Your task to perform on an android device: change timer sound Image 0: 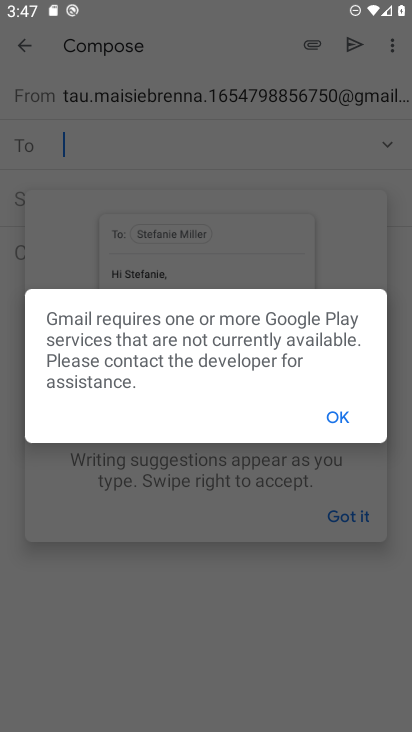
Step 0: press home button
Your task to perform on an android device: change timer sound Image 1: 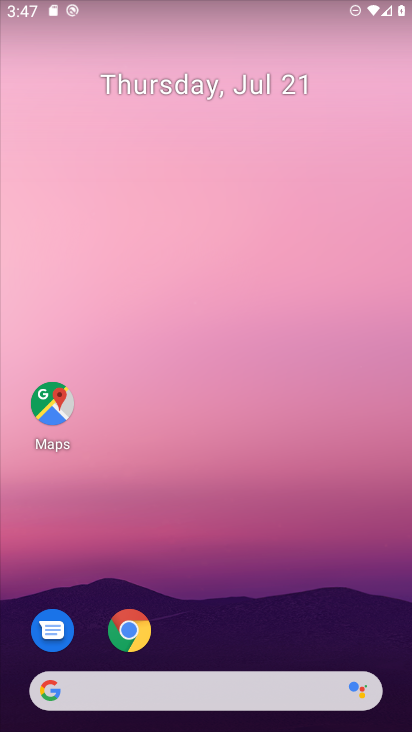
Step 1: drag from (182, 653) to (317, 18)
Your task to perform on an android device: change timer sound Image 2: 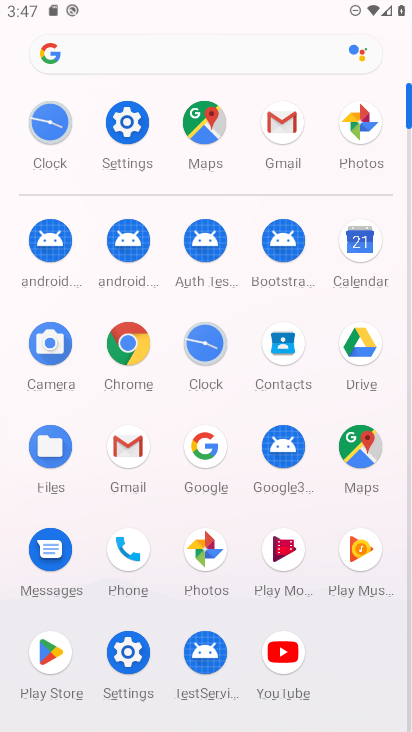
Step 2: click (201, 355)
Your task to perform on an android device: change timer sound Image 3: 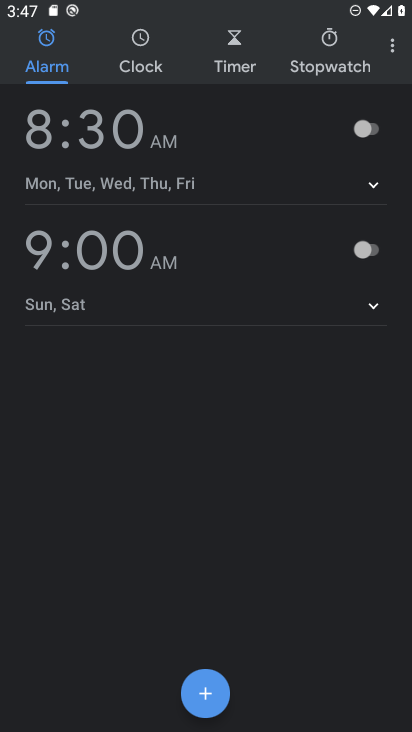
Step 3: click (392, 43)
Your task to perform on an android device: change timer sound Image 4: 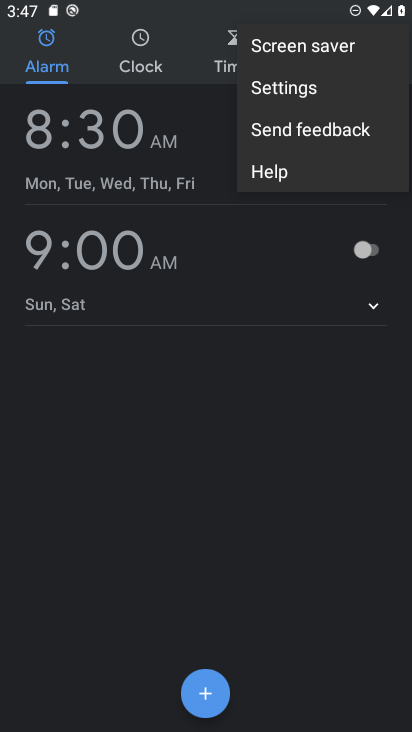
Step 4: click (312, 85)
Your task to perform on an android device: change timer sound Image 5: 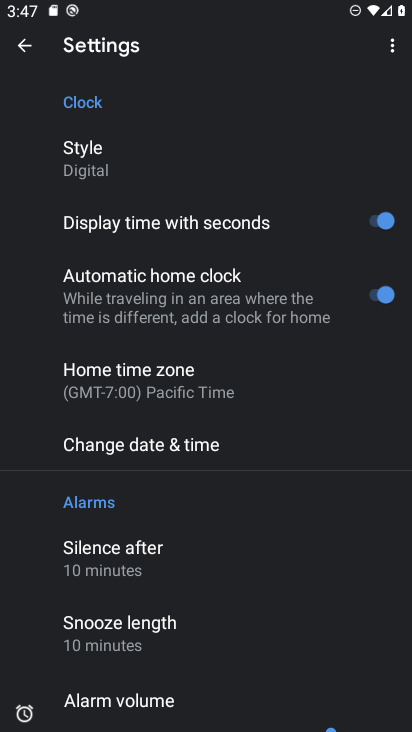
Step 5: drag from (161, 677) to (203, 262)
Your task to perform on an android device: change timer sound Image 6: 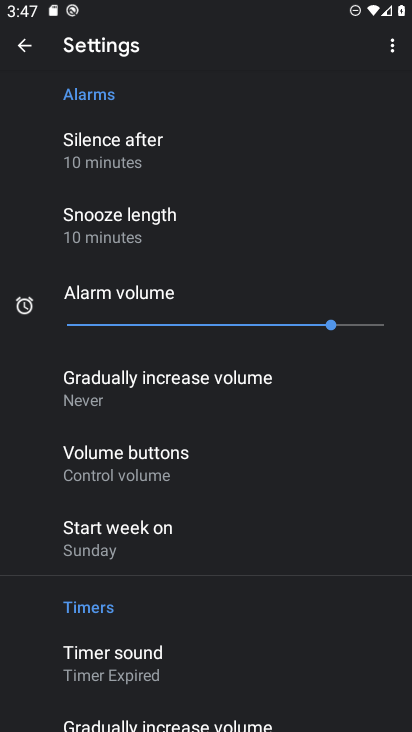
Step 6: click (135, 665)
Your task to perform on an android device: change timer sound Image 7: 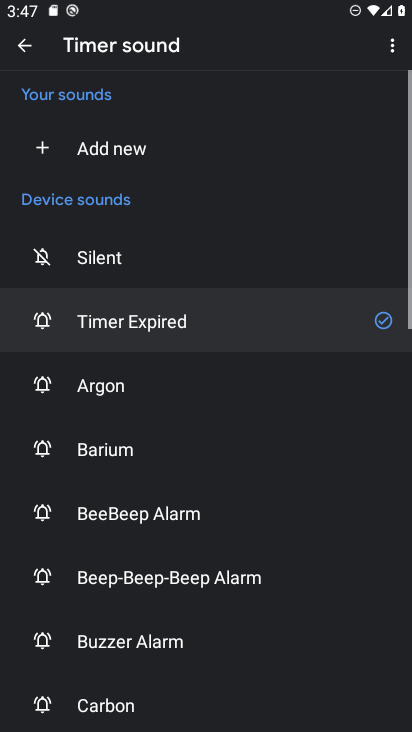
Step 7: click (74, 379)
Your task to perform on an android device: change timer sound Image 8: 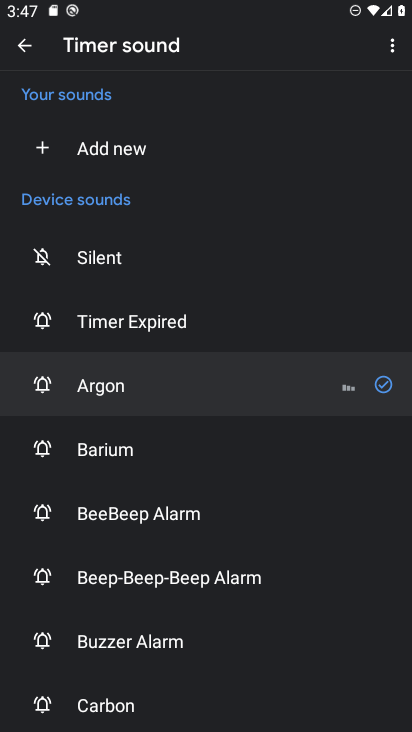
Step 8: task complete